Your task to perform on an android device: Search for Mexican restaurants on Maps Image 0: 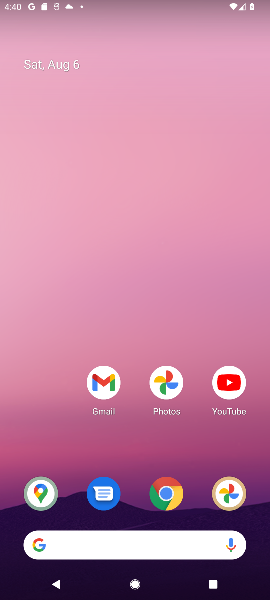
Step 0: drag from (207, 556) to (168, 79)
Your task to perform on an android device: Search for Mexican restaurants on Maps Image 1: 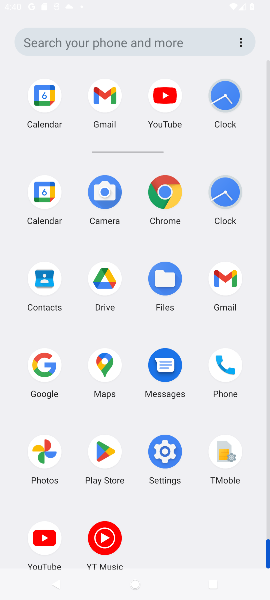
Step 1: drag from (168, 510) to (173, 195)
Your task to perform on an android device: Search for Mexican restaurants on Maps Image 2: 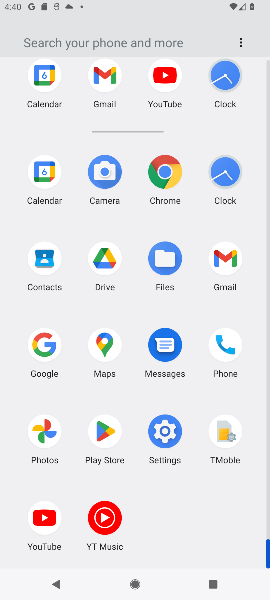
Step 2: click (100, 349)
Your task to perform on an android device: Search for Mexican restaurants on Maps Image 3: 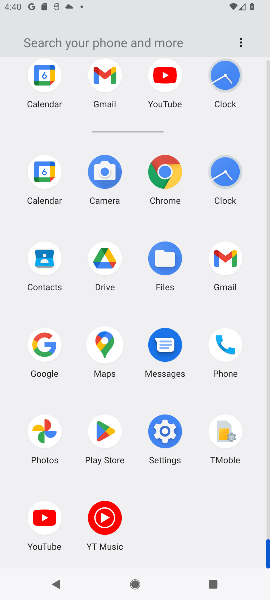
Step 3: click (99, 348)
Your task to perform on an android device: Search for Mexican restaurants on Maps Image 4: 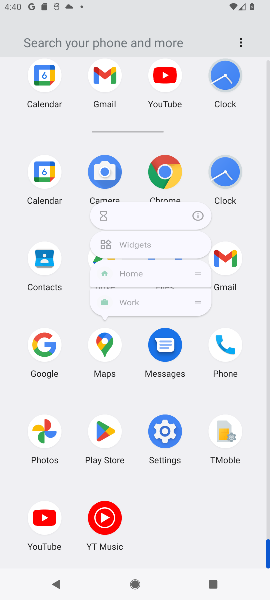
Step 4: click (99, 348)
Your task to perform on an android device: Search for Mexican restaurants on Maps Image 5: 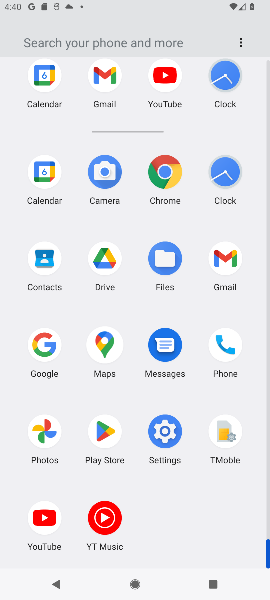
Step 5: click (99, 348)
Your task to perform on an android device: Search for Mexican restaurants on Maps Image 6: 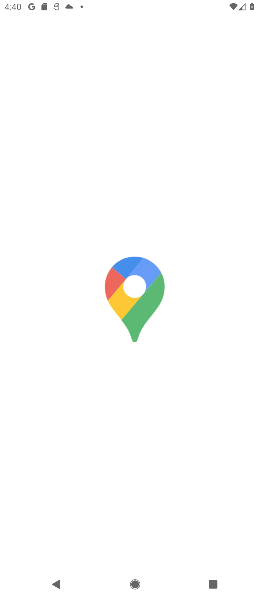
Step 6: click (105, 349)
Your task to perform on an android device: Search for Mexican restaurants on Maps Image 7: 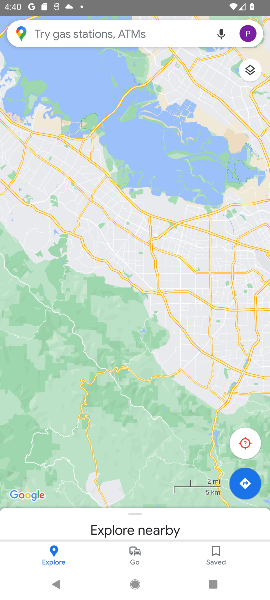
Step 7: click (60, 39)
Your task to perform on an android device: Search for Mexican restaurants on Maps Image 8: 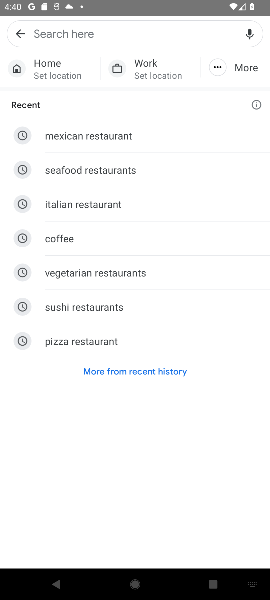
Step 8: click (77, 137)
Your task to perform on an android device: Search for Mexican restaurants on Maps Image 9: 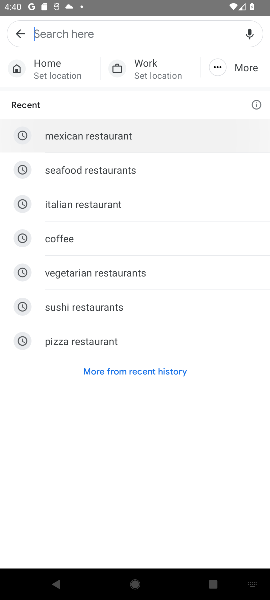
Step 9: click (83, 135)
Your task to perform on an android device: Search for Mexican restaurants on Maps Image 10: 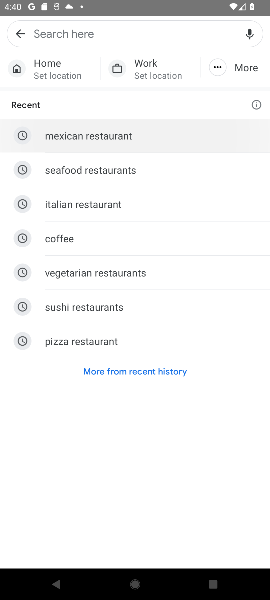
Step 10: click (86, 134)
Your task to perform on an android device: Search for Mexican restaurants on Maps Image 11: 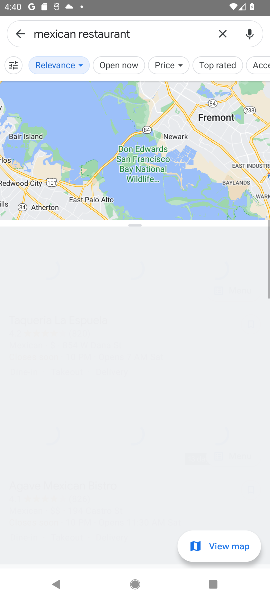
Step 11: task complete